Your task to perform on an android device: search for starred emails in the gmail app Image 0: 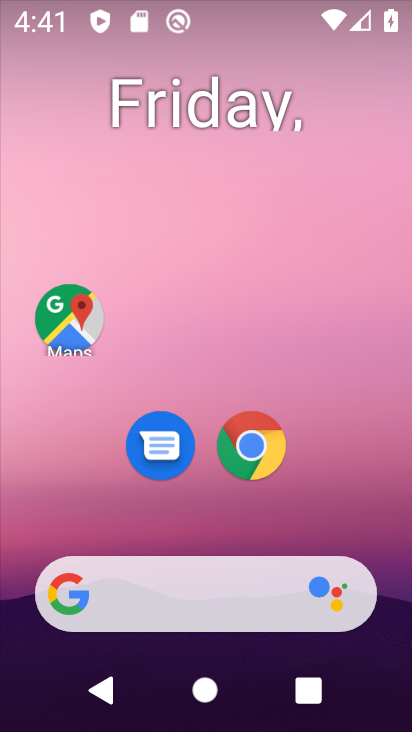
Step 0: click (275, 460)
Your task to perform on an android device: search for starred emails in the gmail app Image 1: 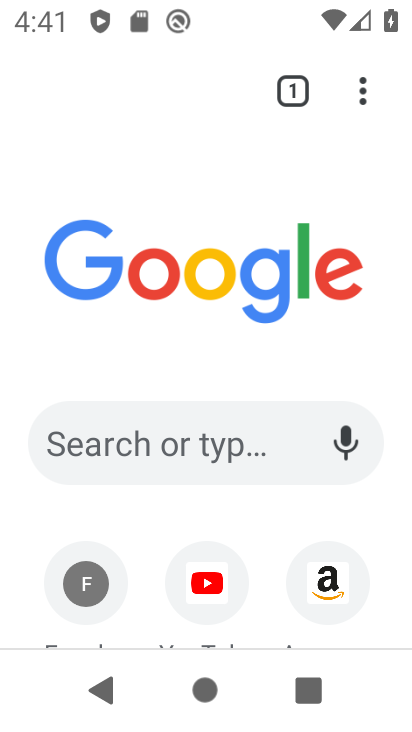
Step 1: press home button
Your task to perform on an android device: search for starred emails in the gmail app Image 2: 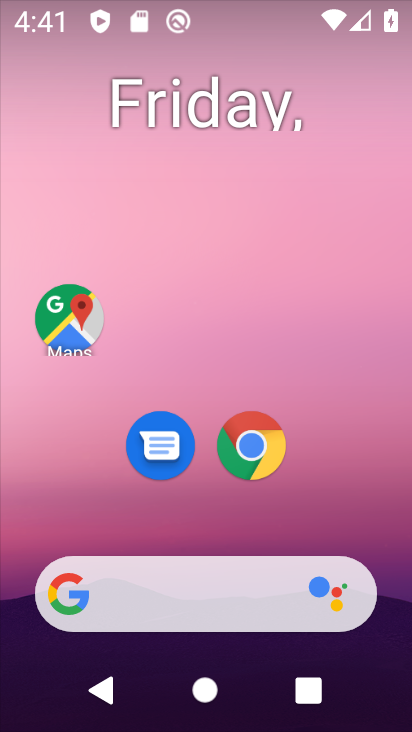
Step 2: drag from (270, 522) to (332, 0)
Your task to perform on an android device: search for starred emails in the gmail app Image 3: 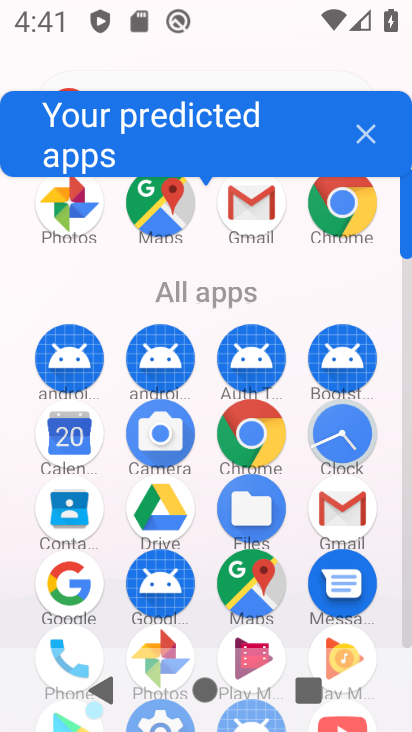
Step 3: click (253, 222)
Your task to perform on an android device: search for starred emails in the gmail app Image 4: 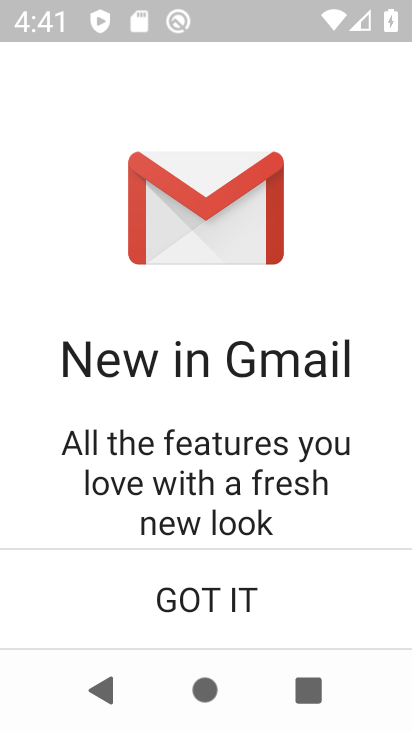
Step 4: click (286, 604)
Your task to perform on an android device: search for starred emails in the gmail app Image 5: 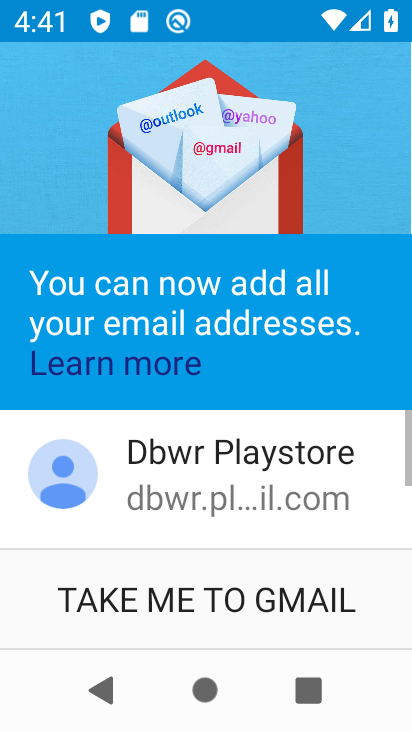
Step 5: click (286, 604)
Your task to perform on an android device: search for starred emails in the gmail app Image 6: 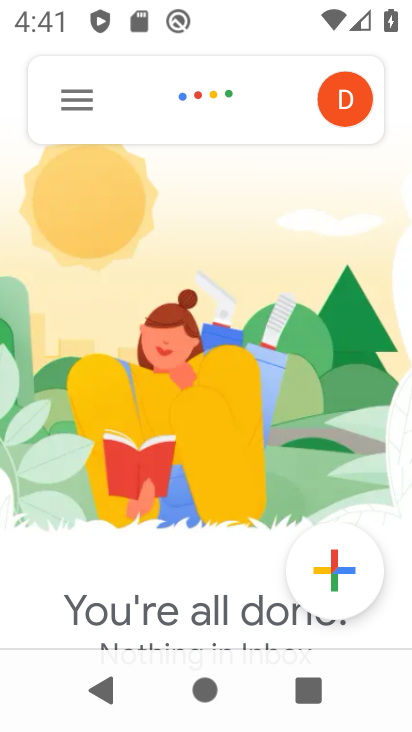
Step 6: click (79, 115)
Your task to perform on an android device: search for starred emails in the gmail app Image 7: 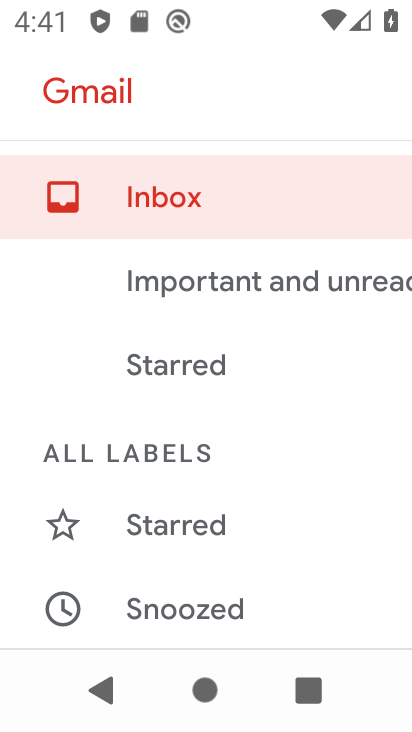
Step 7: task complete